Your task to perform on an android device: How much does the Samsung TV cost? Image 0: 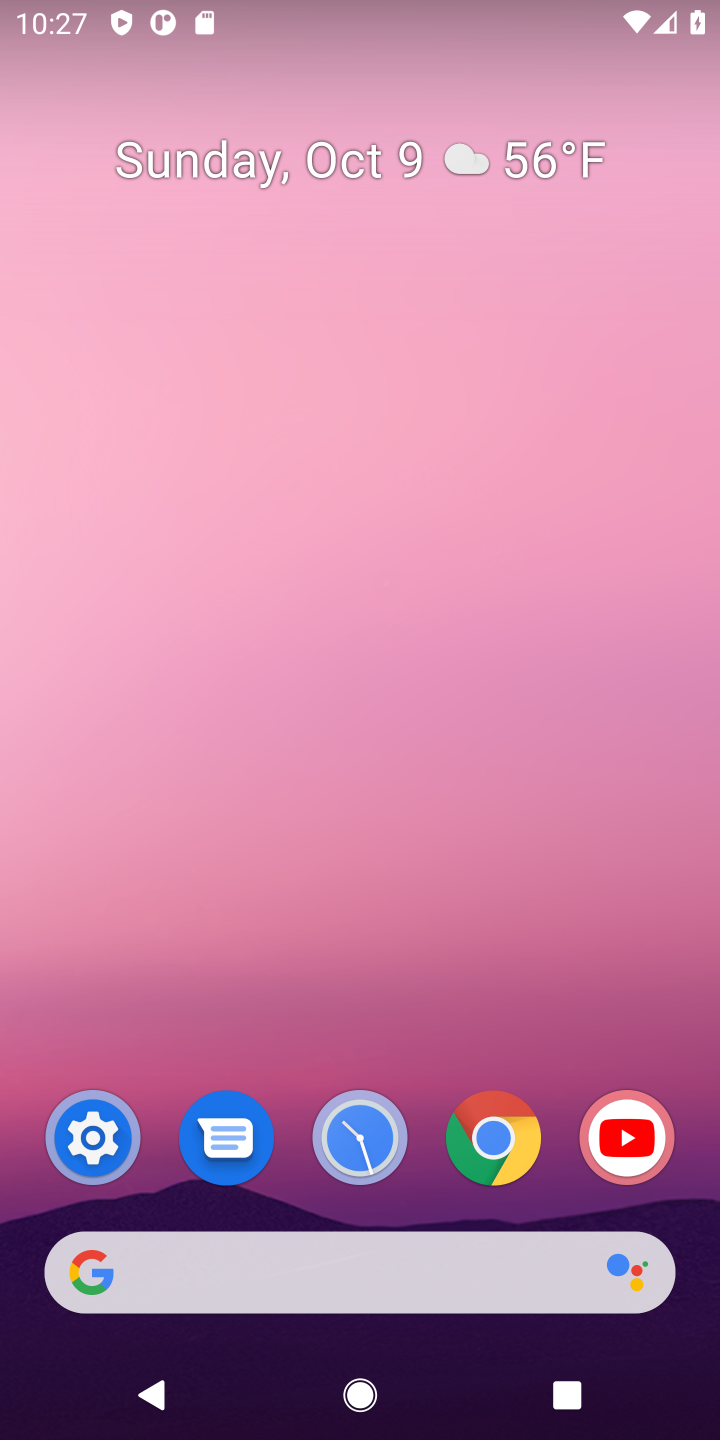
Step 0: click (479, 1143)
Your task to perform on an android device: How much does the Samsung TV cost? Image 1: 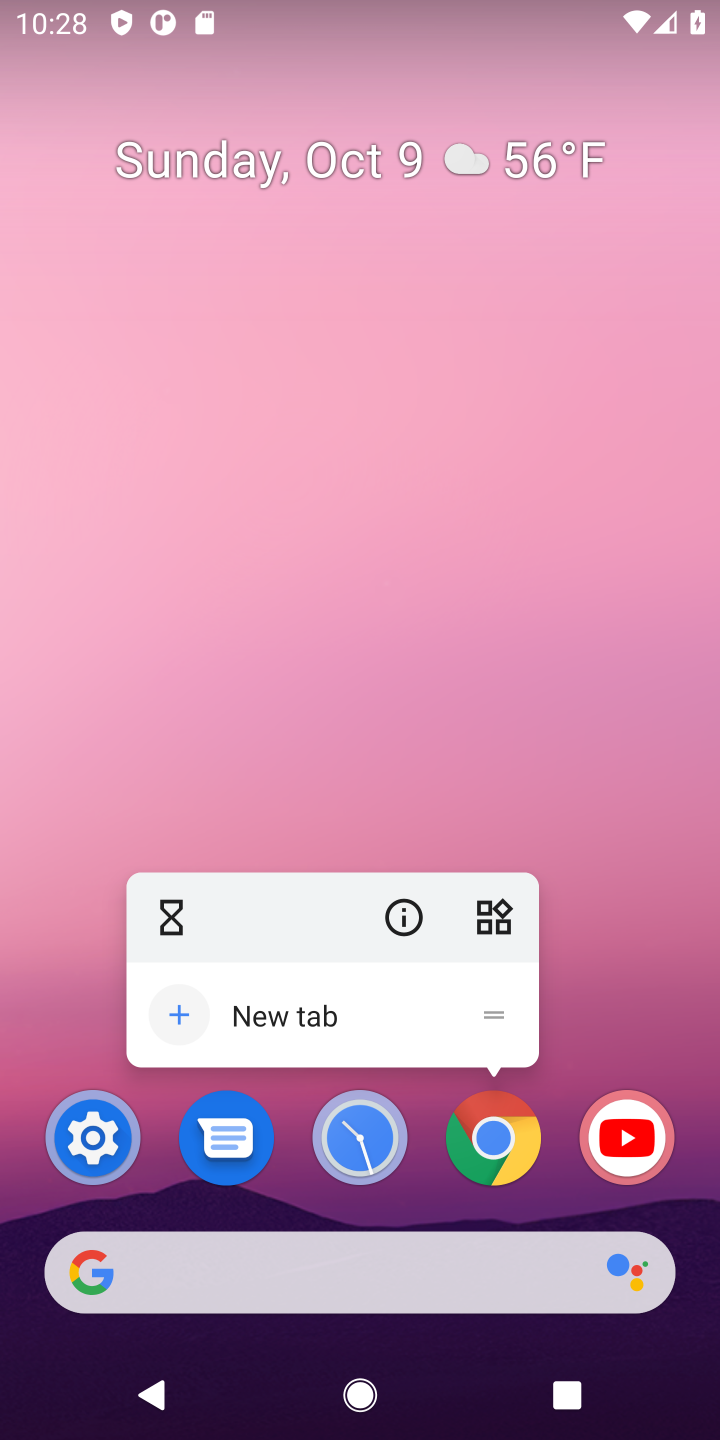
Step 1: click (494, 1143)
Your task to perform on an android device: How much does the Samsung TV cost? Image 2: 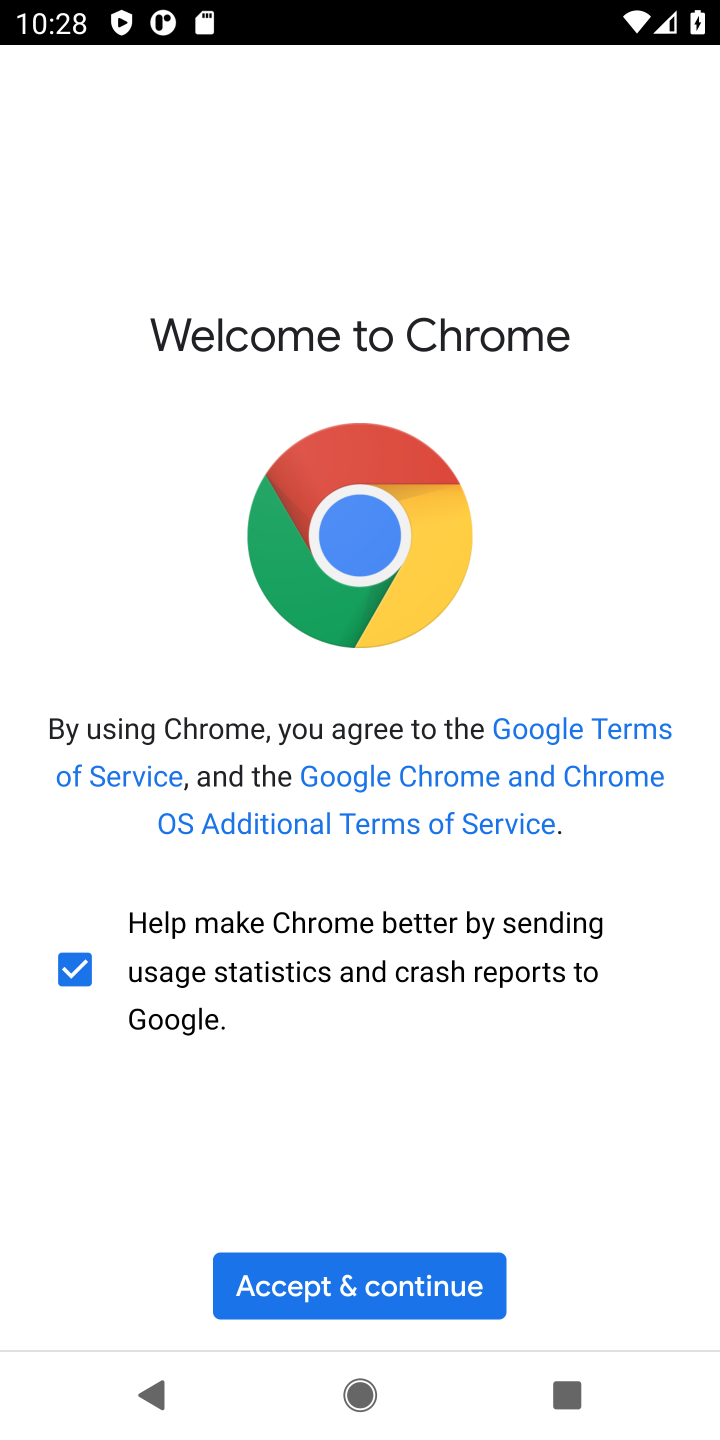
Step 2: click (367, 1290)
Your task to perform on an android device: How much does the Samsung TV cost? Image 3: 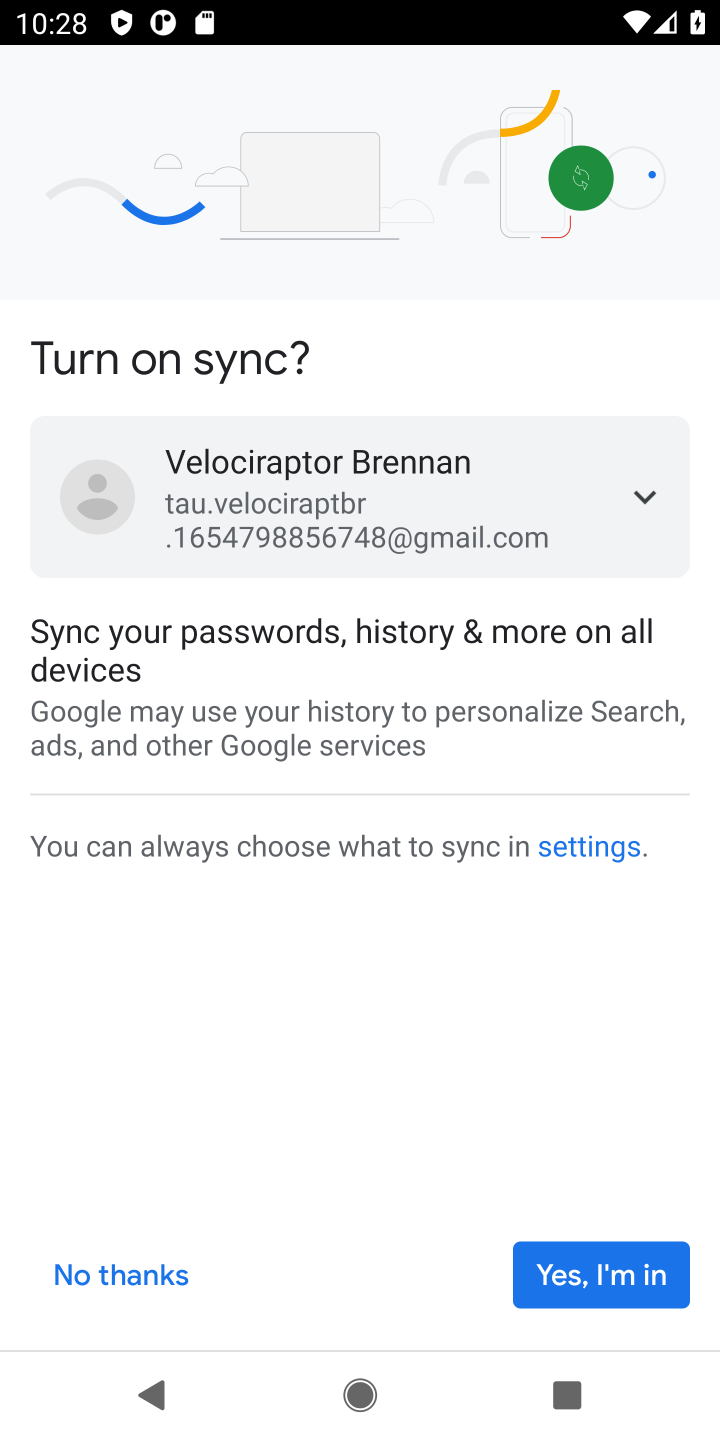
Step 3: click (630, 1271)
Your task to perform on an android device: How much does the Samsung TV cost? Image 4: 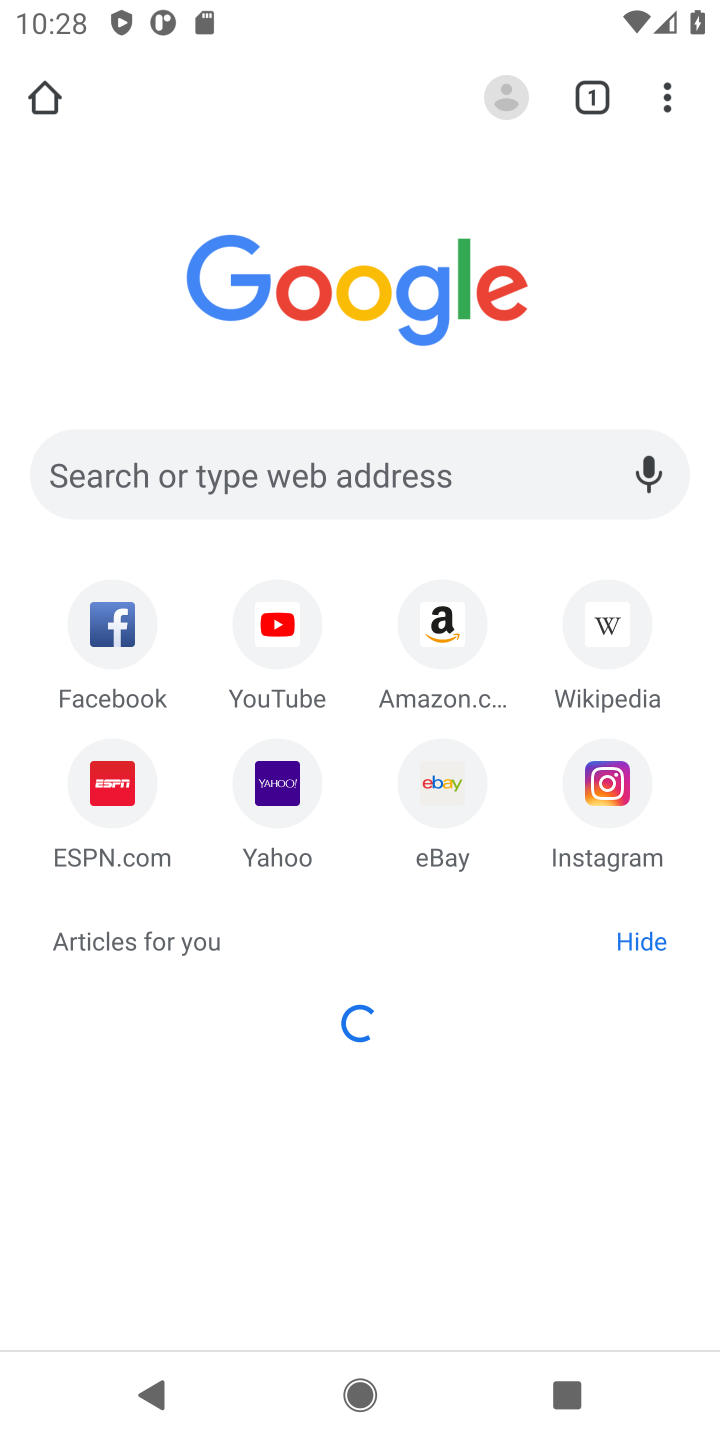
Step 4: click (255, 489)
Your task to perform on an android device: How much does the Samsung TV cost? Image 5: 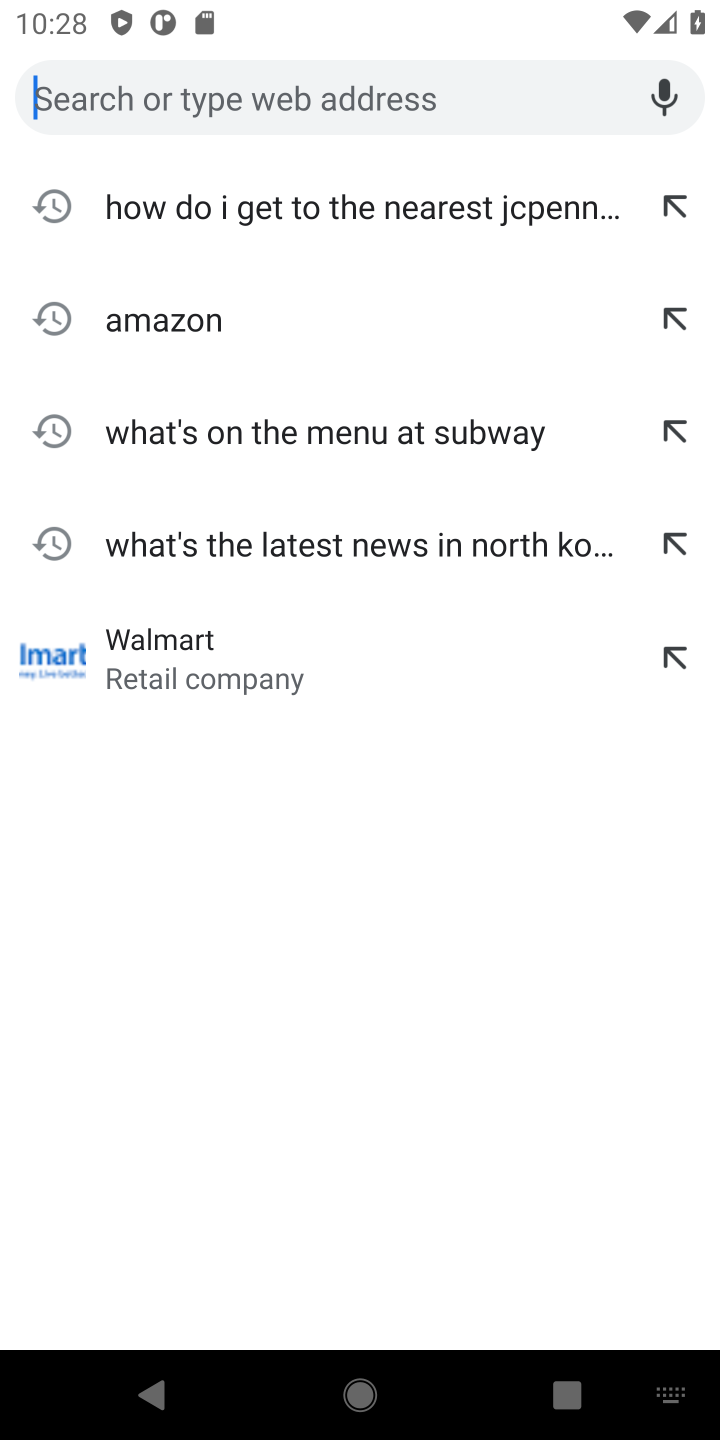
Step 5: type "How much does the Samsung TV cost?"
Your task to perform on an android device: How much does the Samsung TV cost? Image 6: 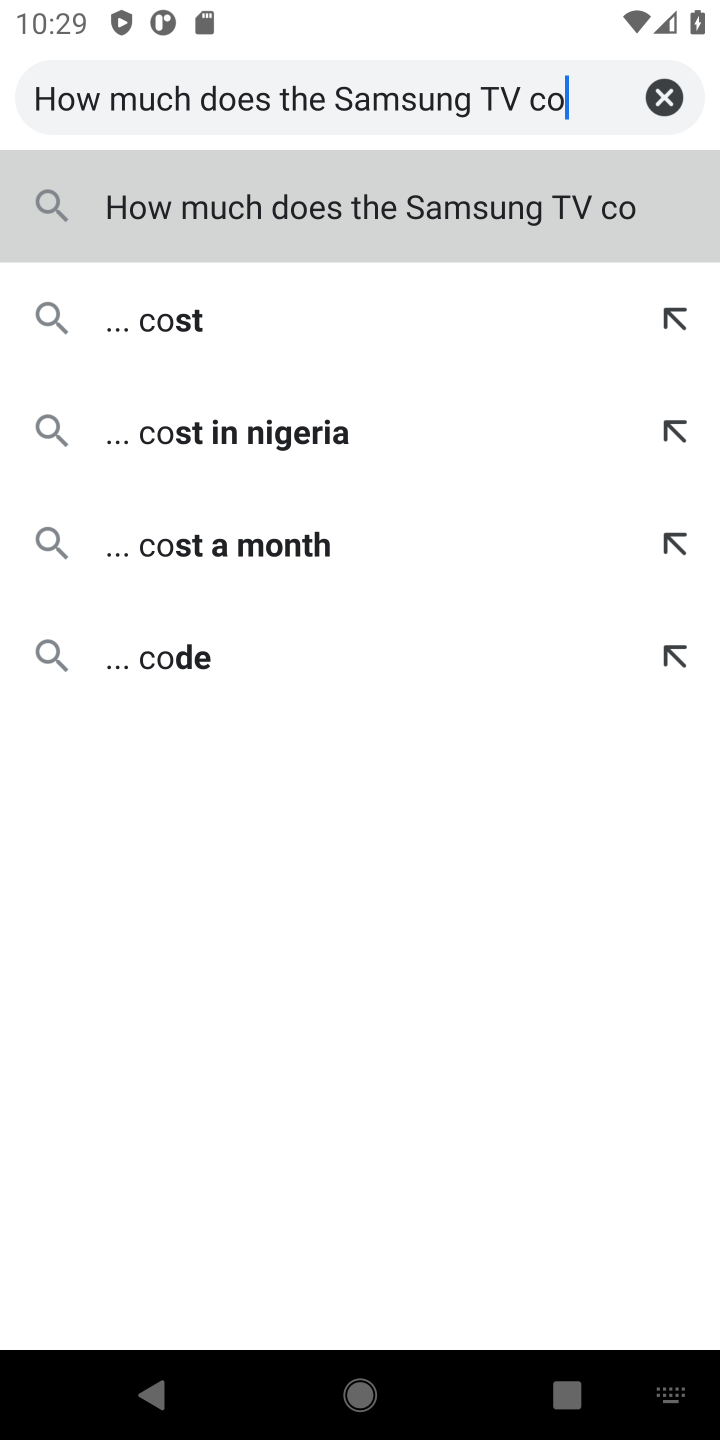
Step 6: click (423, 207)
Your task to perform on an android device: How much does the Samsung TV cost? Image 7: 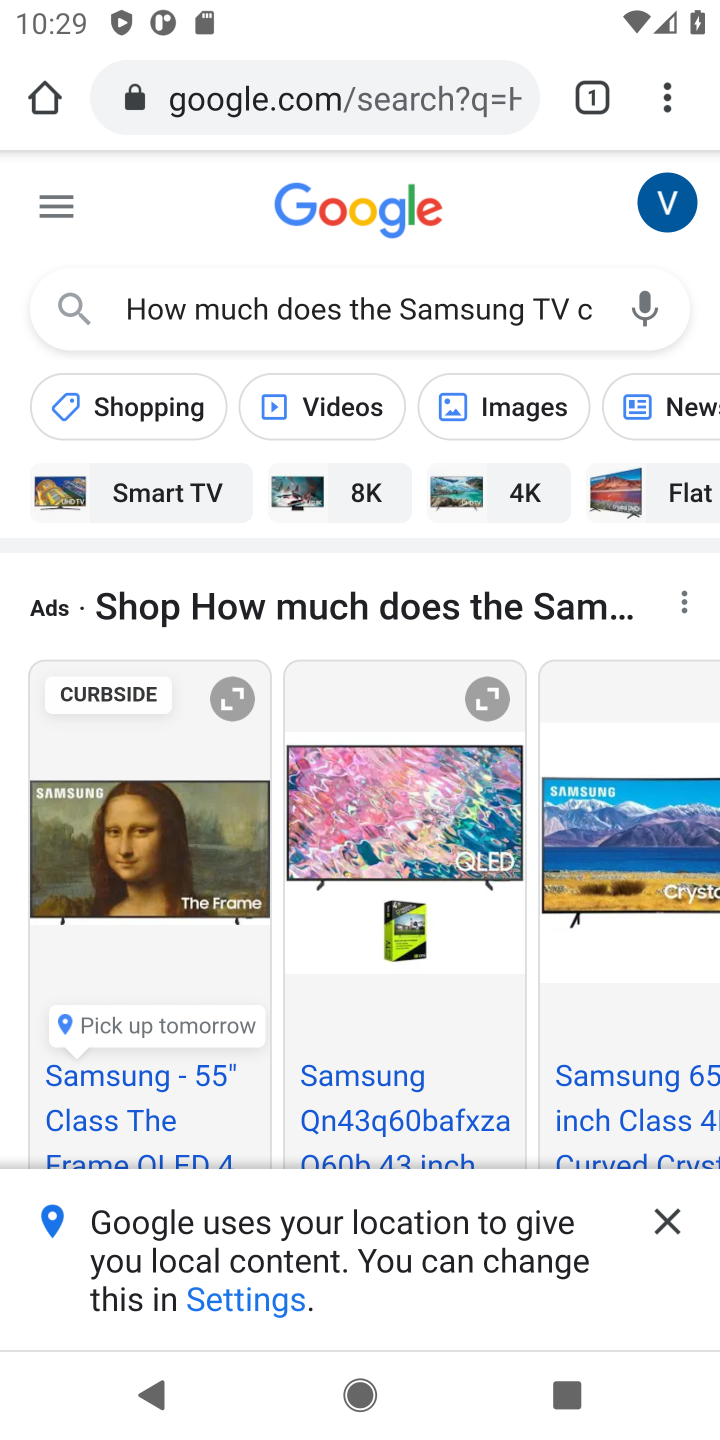
Step 7: task complete